Your task to perform on an android device: Open calendar and show me the second week of next month Image 0: 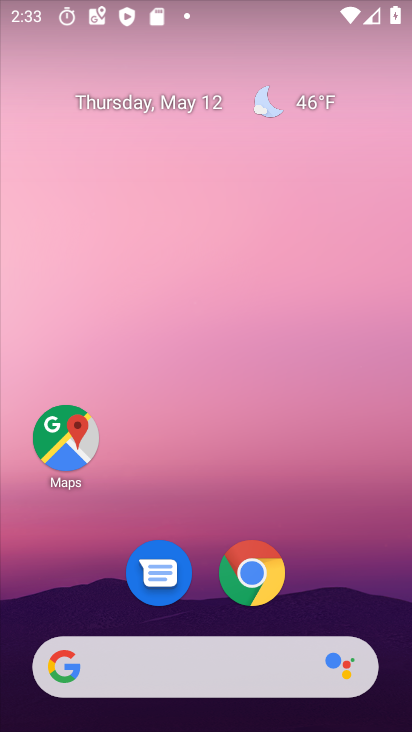
Step 0: click (188, 116)
Your task to perform on an android device: Open calendar and show me the second week of next month Image 1: 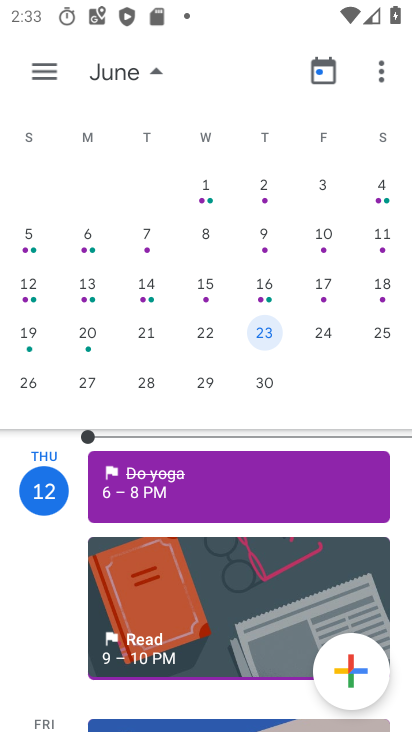
Step 1: drag from (379, 385) to (324, 300)
Your task to perform on an android device: Open calendar and show me the second week of next month Image 2: 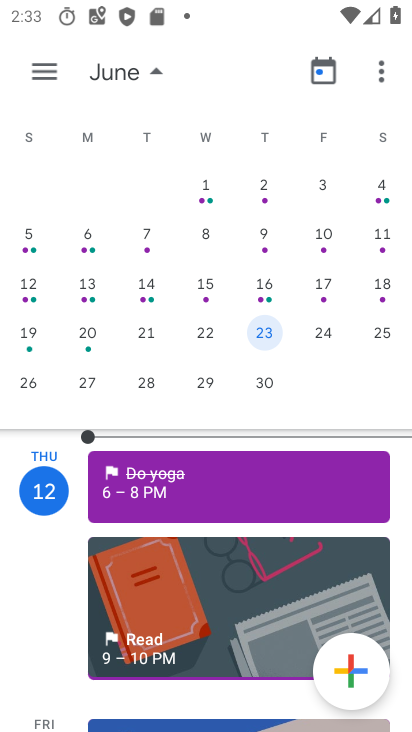
Step 2: click (240, 247)
Your task to perform on an android device: Open calendar and show me the second week of next month Image 3: 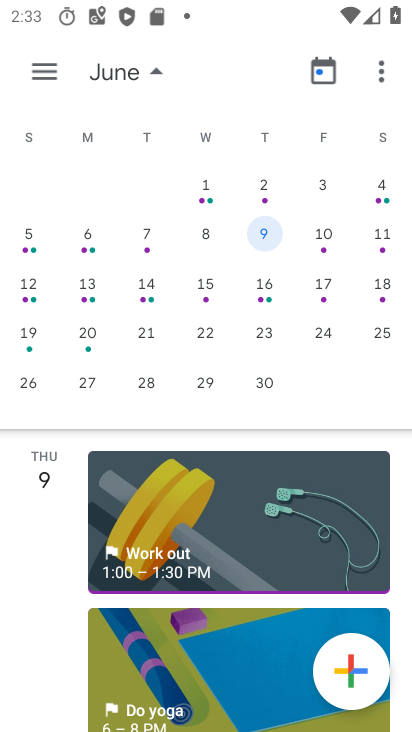
Step 3: task complete